Your task to perform on an android device: Open the calendar and show me this week's events? Image 0: 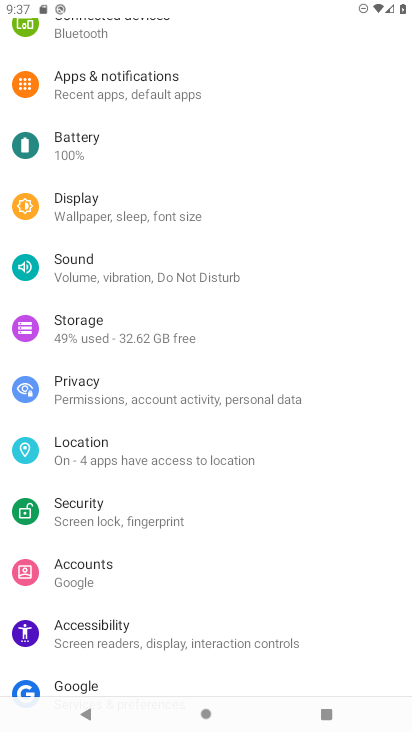
Step 0: drag from (183, 628) to (218, 328)
Your task to perform on an android device: Open the calendar and show me this week's events? Image 1: 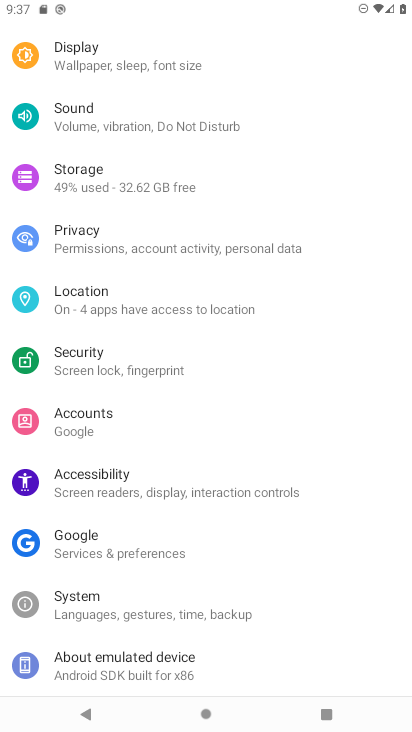
Step 1: press home button
Your task to perform on an android device: Open the calendar and show me this week's events? Image 2: 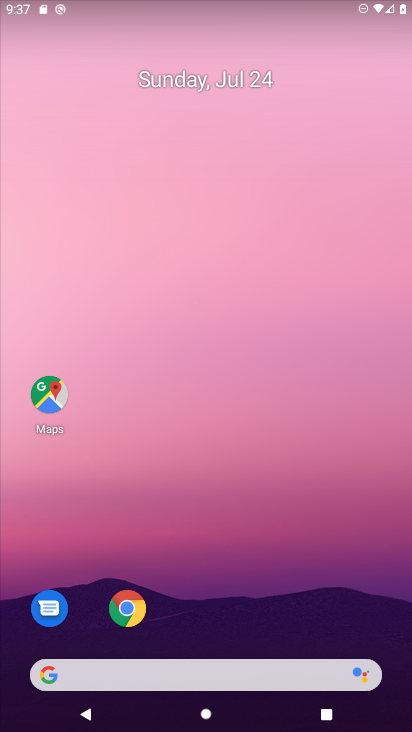
Step 2: drag from (163, 645) to (231, 251)
Your task to perform on an android device: Open the calendar and show me this week's events? Image 3: 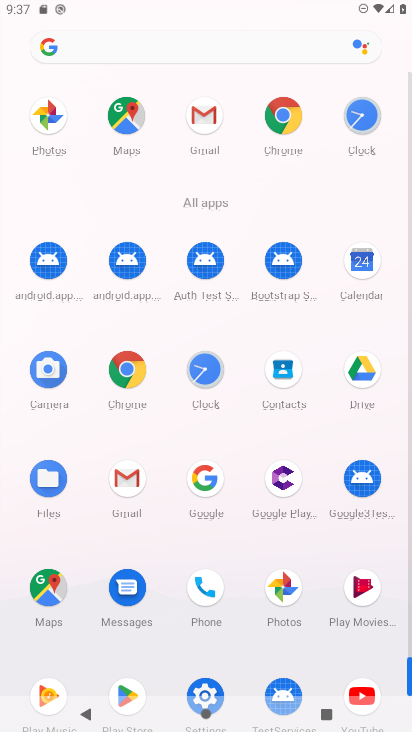
Step 3: click (361, 254)
Your task to perform on an android device: Open the calendar and show me this week's events? Image 4: 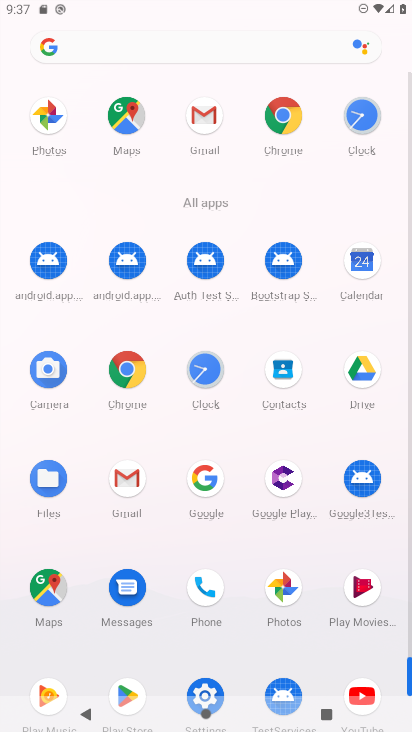
Step 4: click (361, 254)
Your task to perform on an android device: Open the calendar and show me this week's events? Image 5: 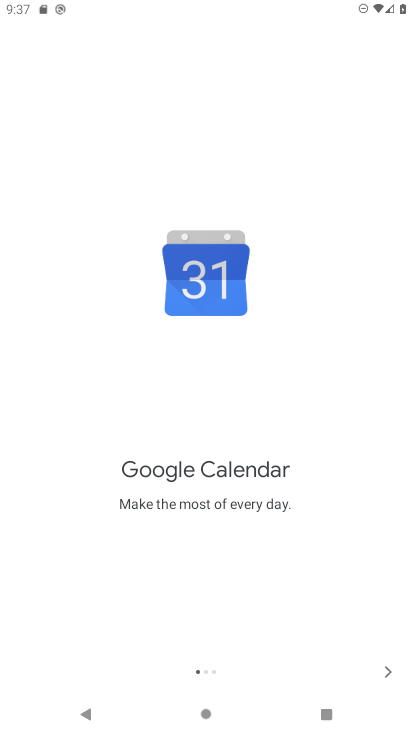
Step 5: click (388, 666)
Your task to perform on an android device: Open the calendar and show me this week's events? Image 6: 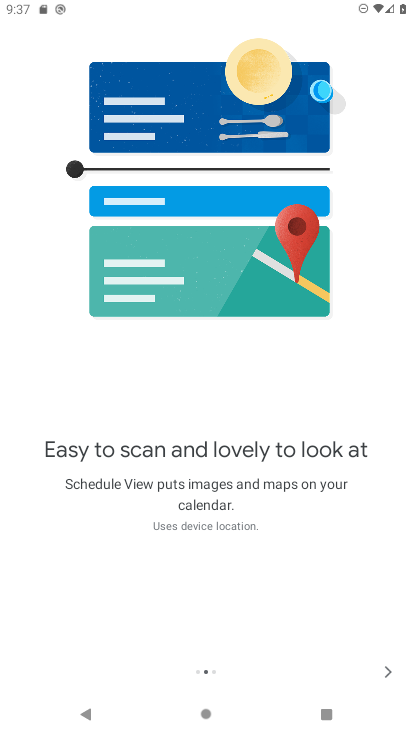
Step 6: click (387, 665)
Your task to perform on an android device: Open the calendar and show me this week's events? Image 7: 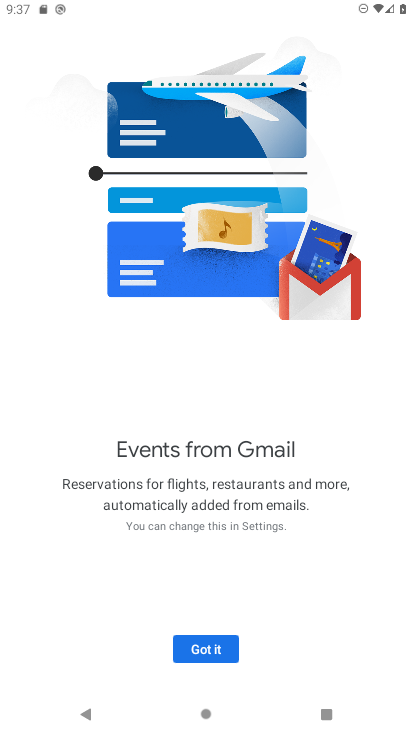
Step 7: click (234, 652)
Your task to perform on an android device: Open the calendar and show me this week's events? Image 8: 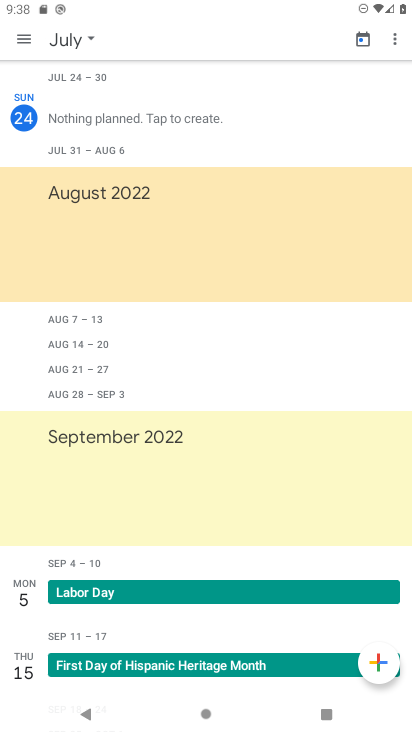
Step 8: click (71, 35)
Your task to perform on an android device: Open the calendar and show me this week's events? Image 9: 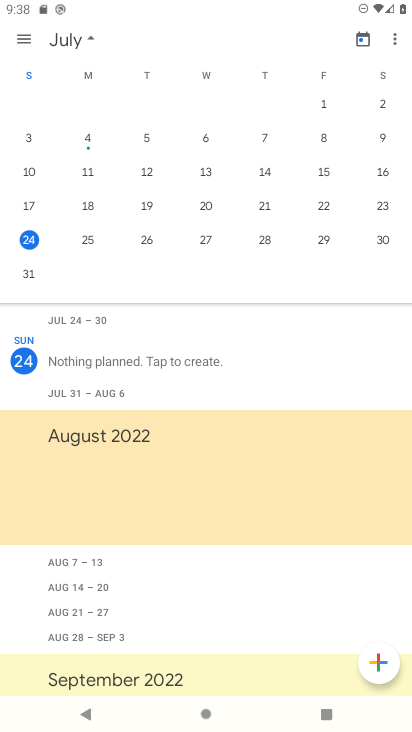
Step 9: click (376, 238)
Your task to perform on an android device: Open the calendar and show me this week's events? Image 10: 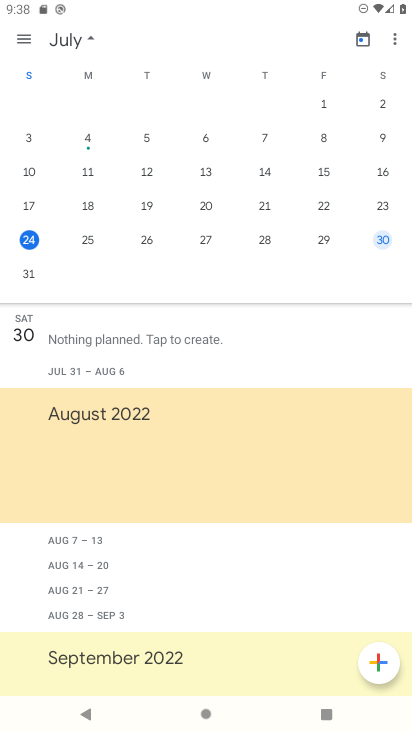
Step 10: task complete